Your task to perform on an android device: set the stopwatch Image 0: 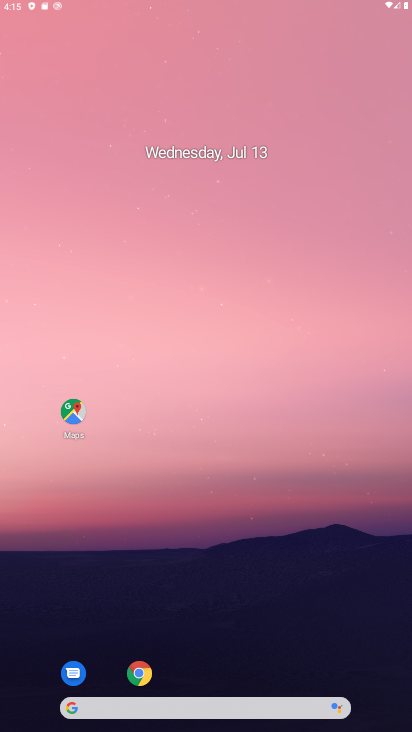
Step 0: drag from (263, 577) to (208, 53)
Your task to perform on an android device: set the stopwatch Image 1: 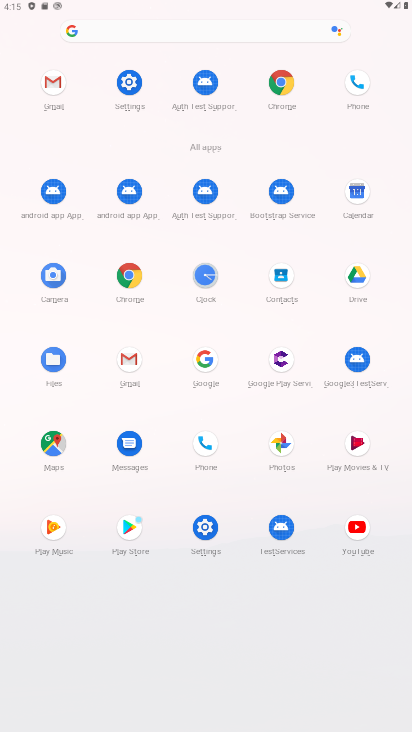
Step 1: click (216, 274)
Your task to perform on an android device: set the stopwatch Image 2: 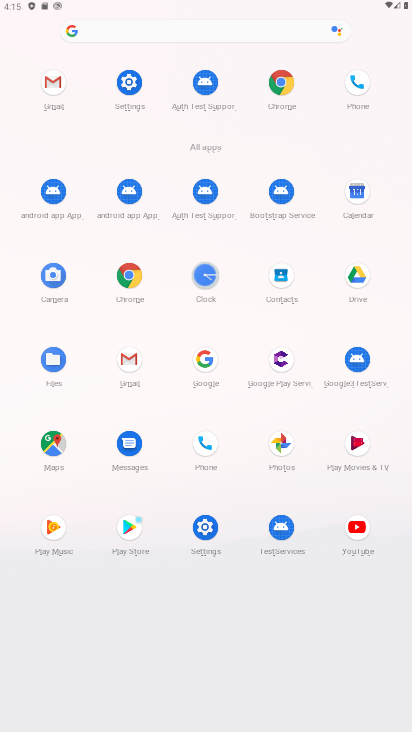
Step 2: click (210, 279)
Your task to perform on an android device: set the stopwatch Image 3: 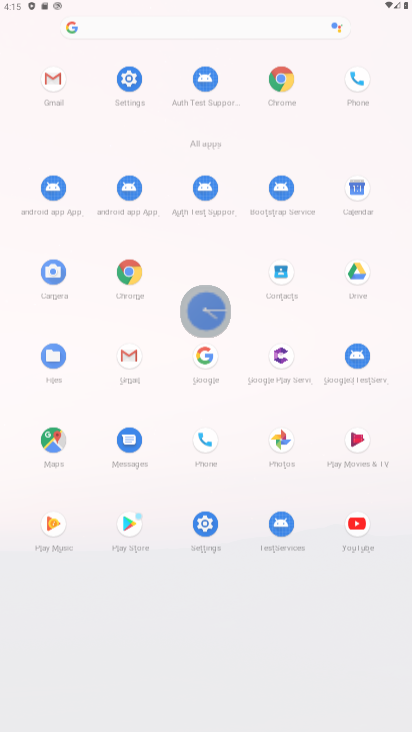
Step 3: click (210, 279)
Your task to perform on an android device: set the stopwatch Image 4: 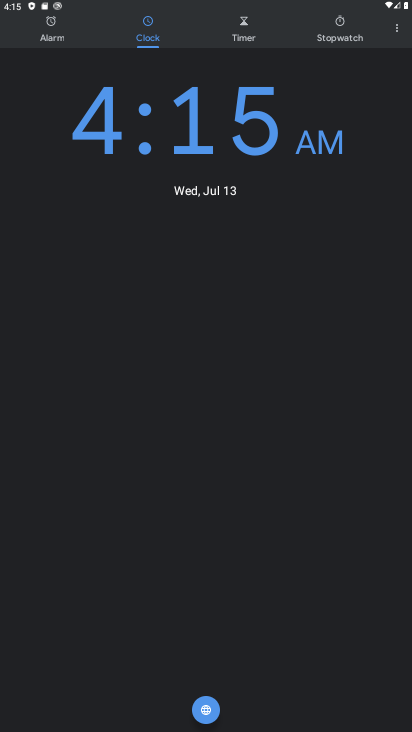
Step 4: click (334, 42)
Your task to perform on an android device: set the stopwatch Image 5: 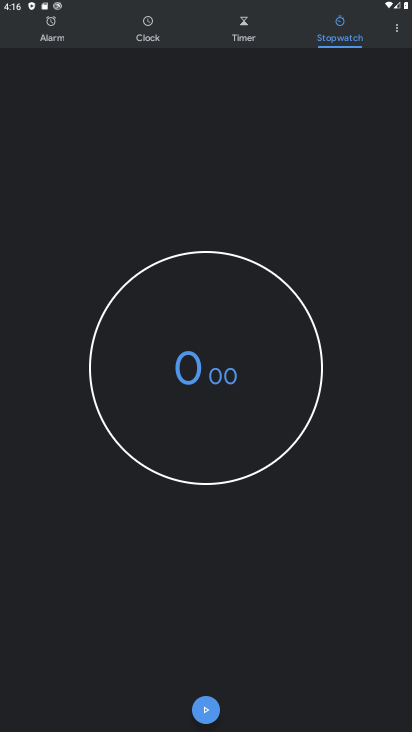
Step 5: click (338, 32)
Your task to perform on an android device: set the stopwatch Image 6: 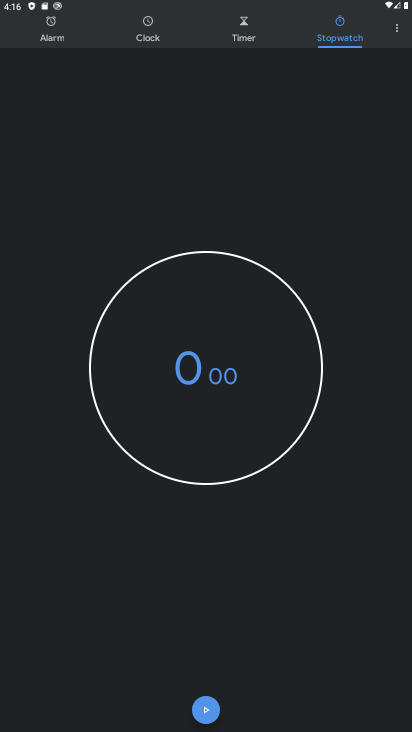
Step 6: click (195, 710)
Your task to perform on an android device: set the stopwatch Image 7: 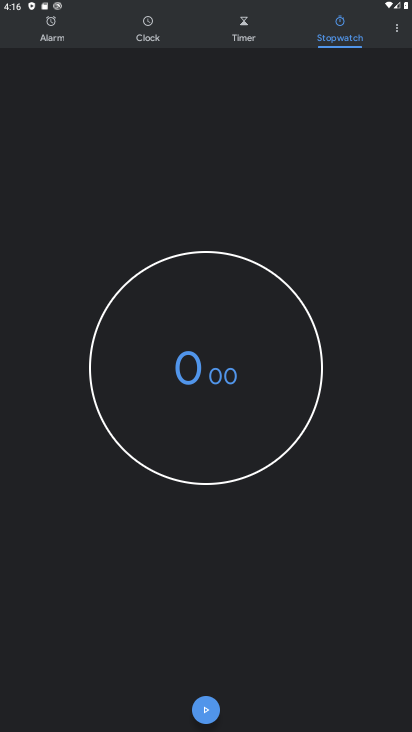
Step 7: click (196, 706)
Your task to perform on an android device: set the stopwatch Image 8: 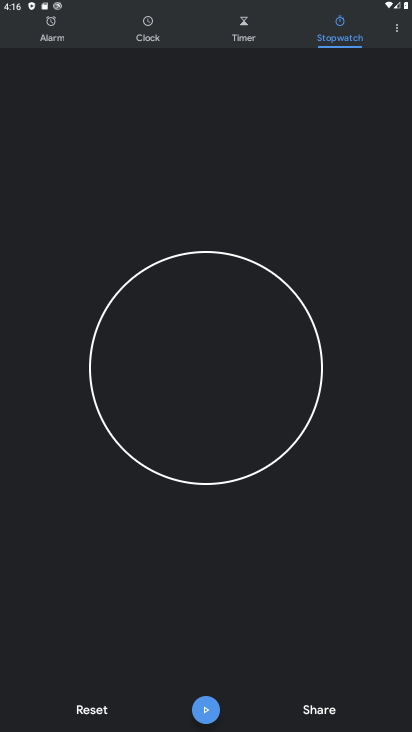
Step 8: click (201, 707)
Your task to perform on an android device: set the stopwatch Image 9: 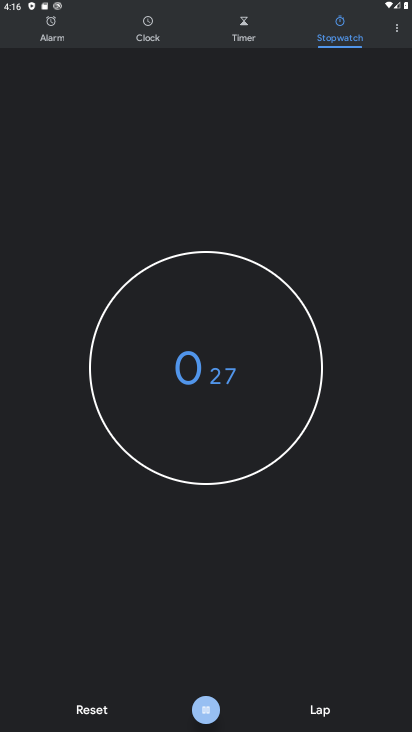
Step 9: click (201, 707)
Your task to perform on an android device: set the stopwatch Image 10: 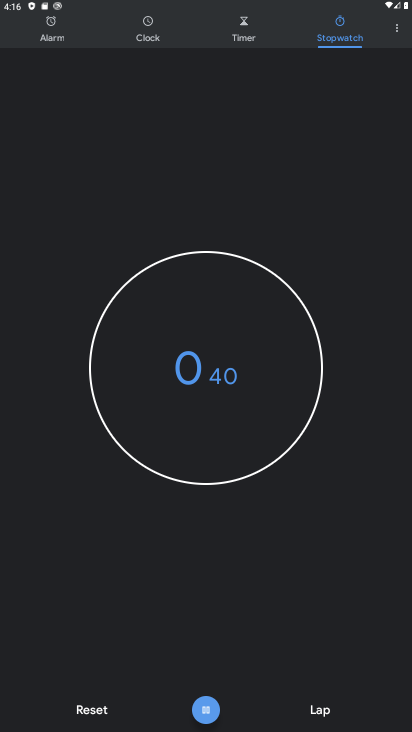
Step 10: click (201, 707)
Your task to perform on an android device: set the stopwatch Image 11: 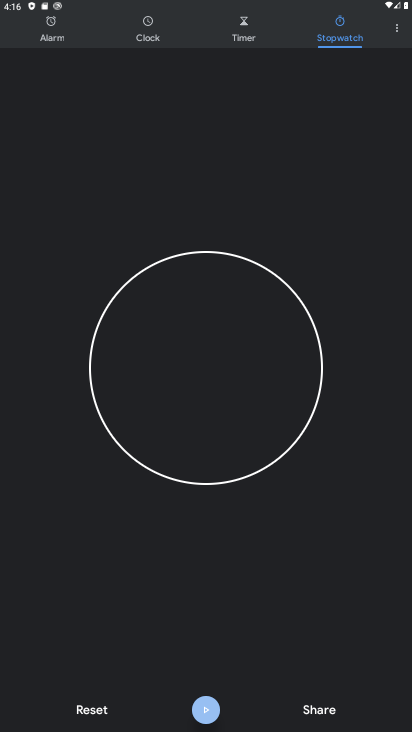
Step 11: click (212, 701)
Your task to perform on an android device: set the stopwatch Image 12: 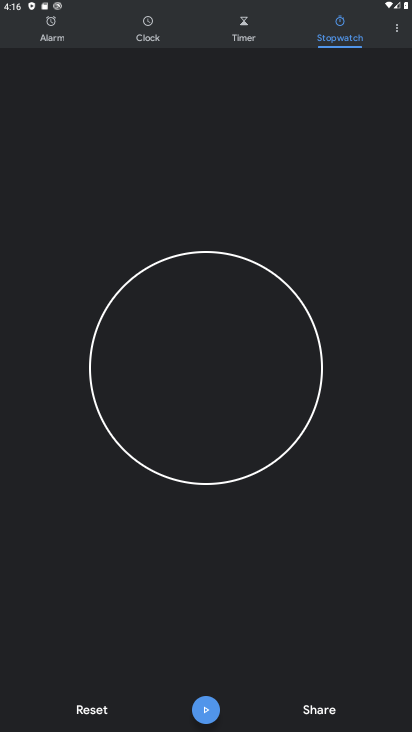
Step 12: click (203, 711)
Your task to perform on an android device: set the stopwatch Image 13: 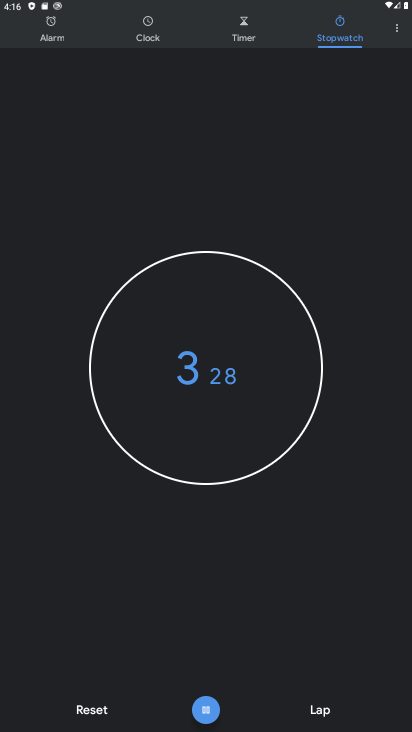
Step 13: click (204, 709)
Your task to perform on an android device: set the stopwatch Image 14: 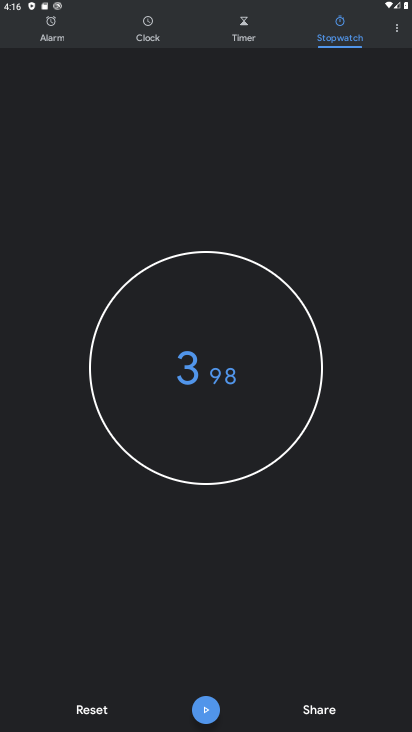
Step 14: task complete